Your task to perform on an android device: View the shopping cart on amazon.com. Image 0: 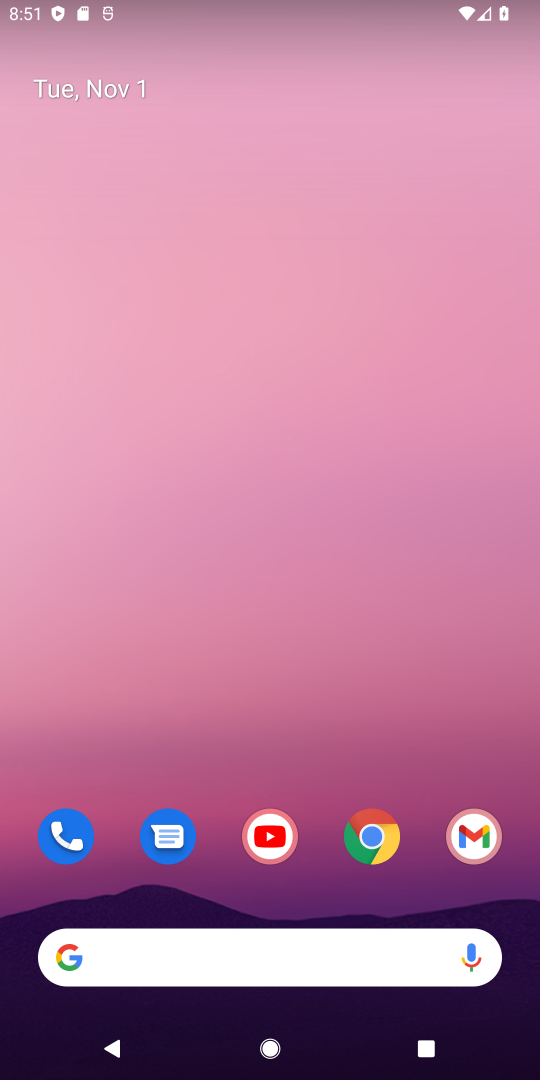
Step 0: drag from (320, 805) to (359, 171)
Your task to perform on an android device: View the shopping cart on amazon.com. Image 1: 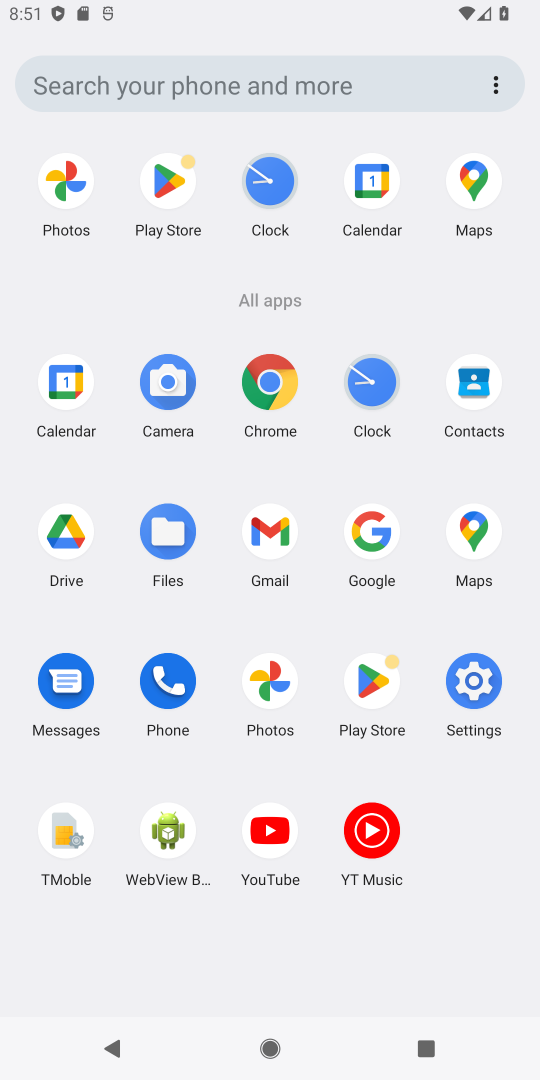
Step 1: click (273, 395)
Your task to perform on an android device: View the shopping cart on amazon.com. Image 2: 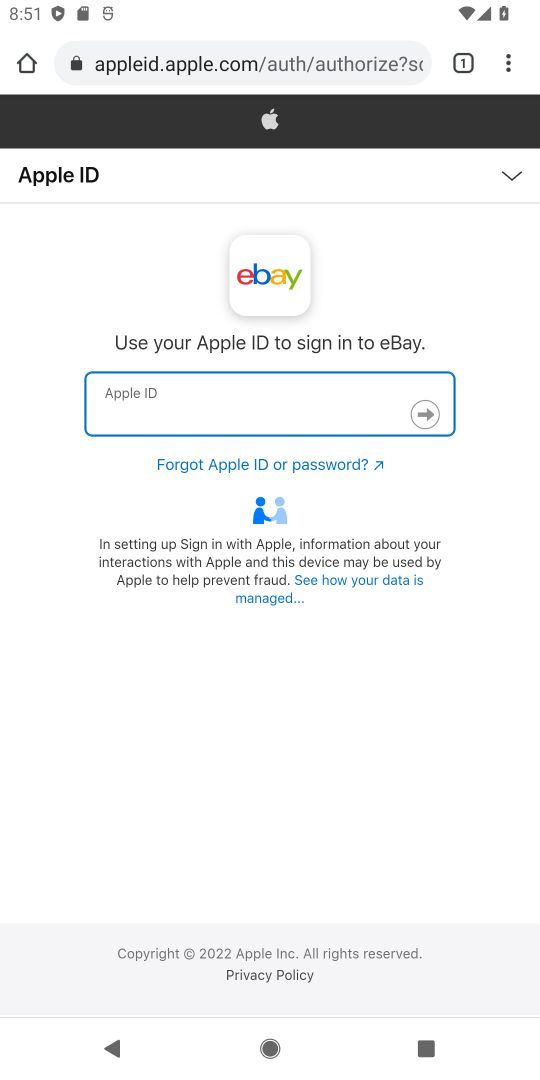
Step 2: click (286, 58)
Your task to perform on an android device: View the shopping cart on amazon.com. Image 3: 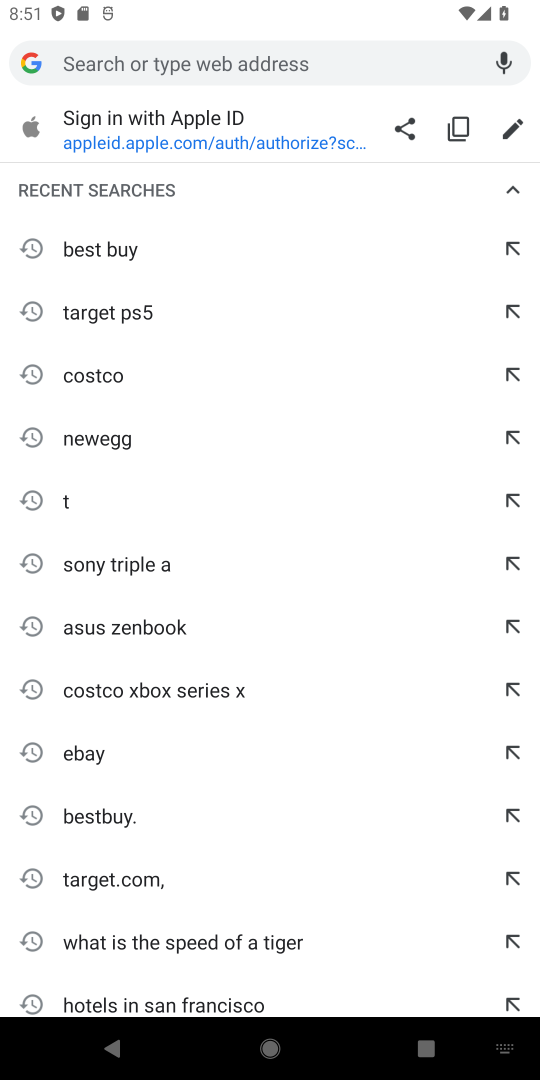
Step 3: click (311, 53)
Your task to perform on an android device: View the shopping cart on amazon.com. Image 4: 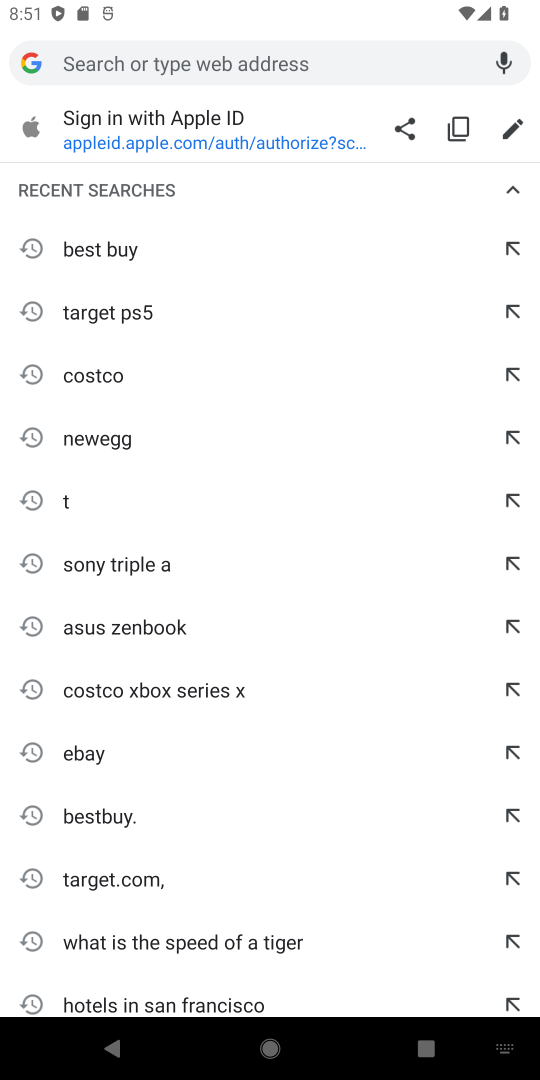
Step 4: type "amazon.com"
Your task to perform on an android device: View the shopping cart on amazon.com. Image 5: 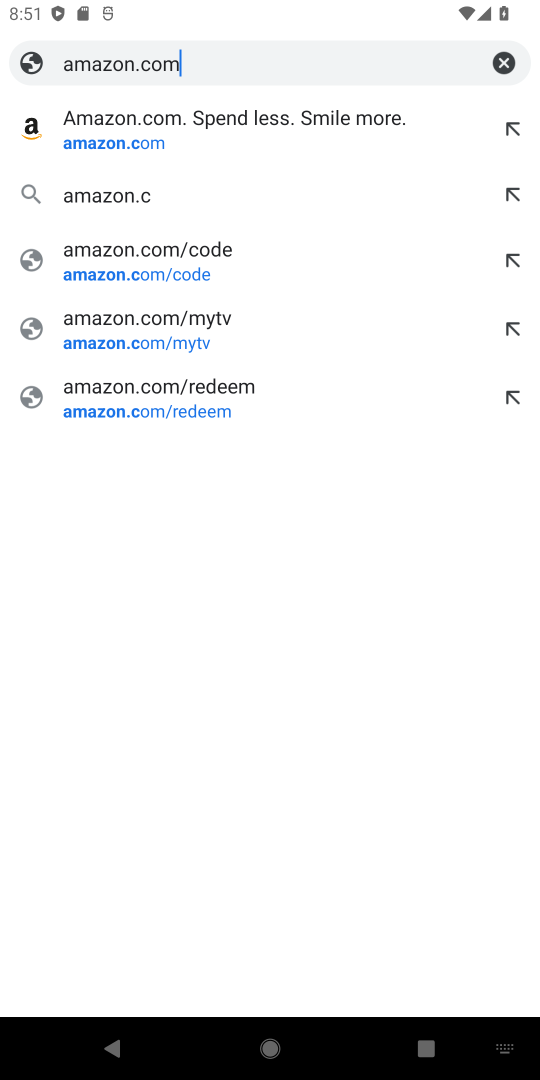
Step 5: type ""
Your task to perform on an android device: View the shopping cart on amazon.com. Image 6: 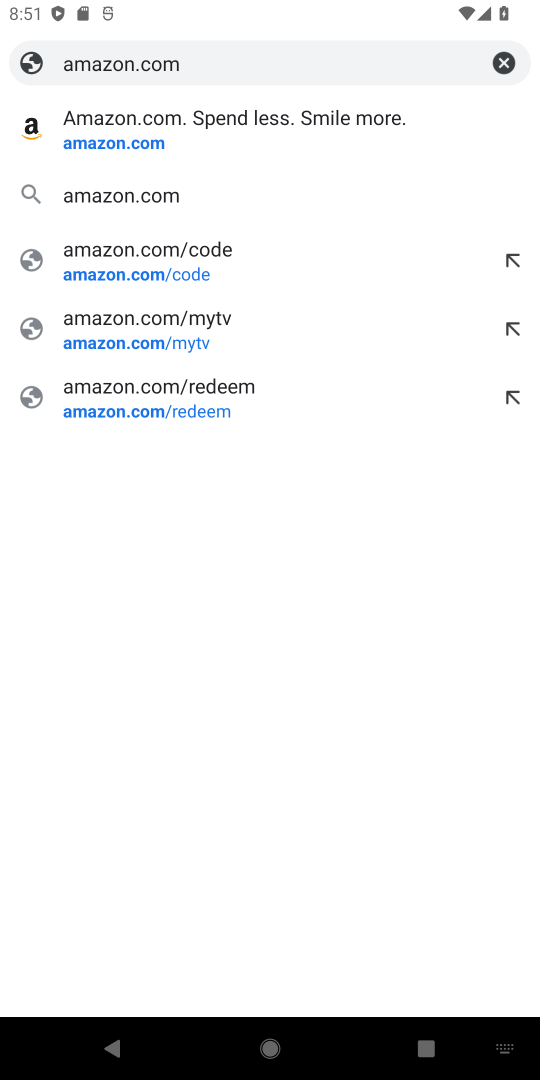
Step 6: click (282, 141)
Your task to perform on an android device: View the shopping cart on amazon.com. Image 7: 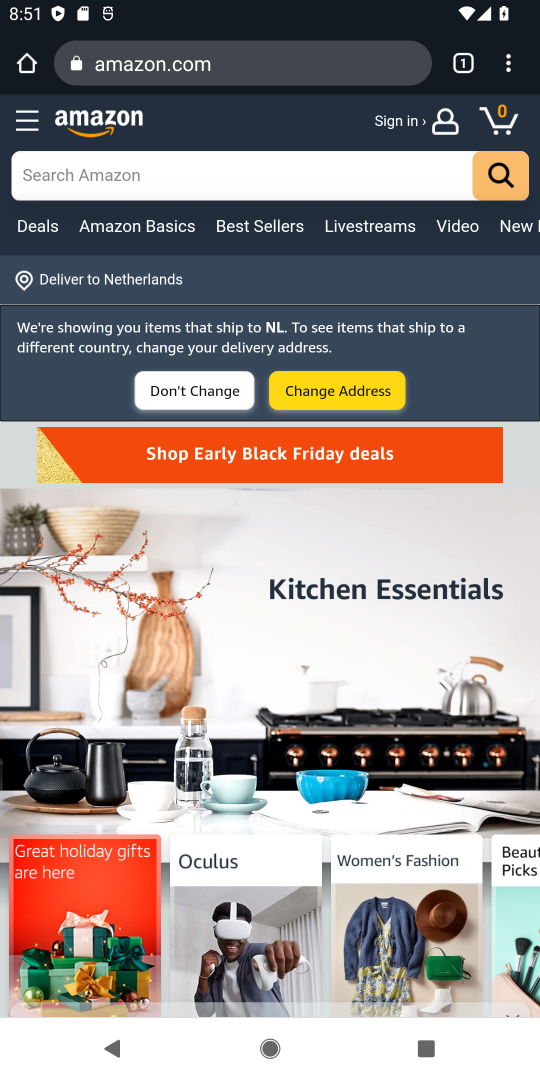
Step 7: click (185, 393)
Your task to perform on an android device: View the shopping cart on amazon.com. Image 8: 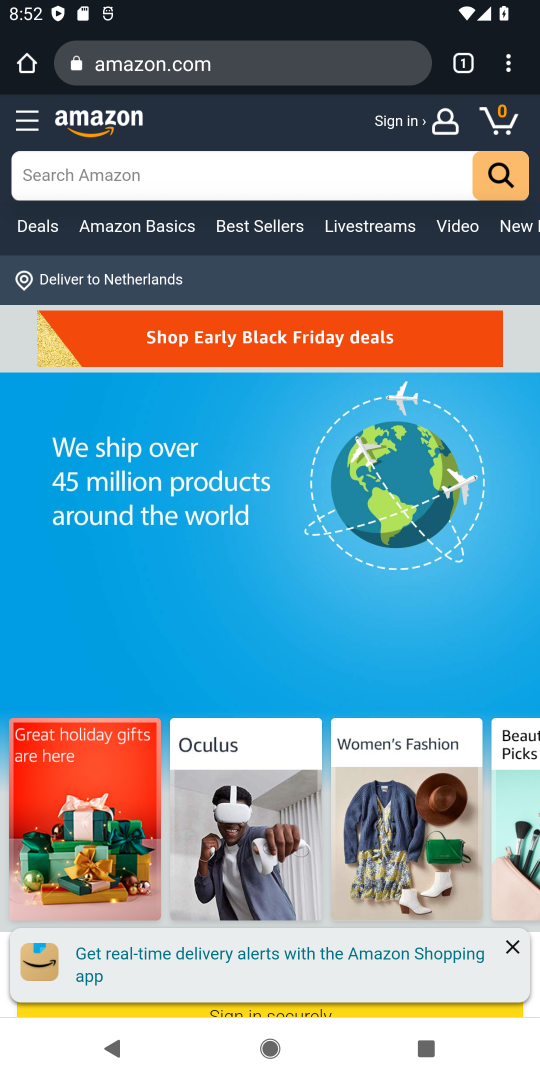
Step 8: click (504, 118)
Your task to perform on an android device: View the shopping cart on amazon.com. Image 9: 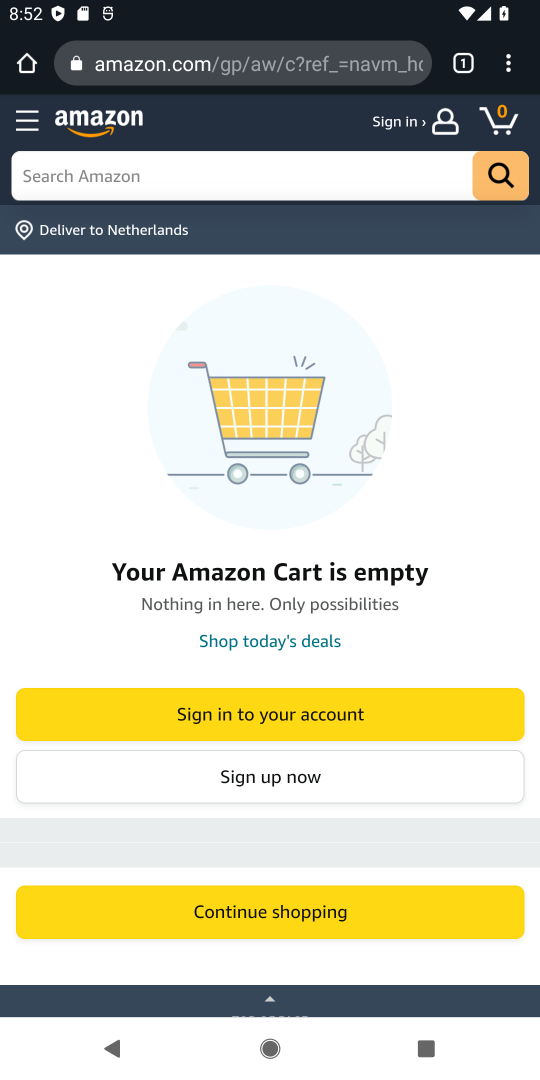
Step 9: drag from (240, 667) to (337, 290)
Your task to perform on an android device: View the shopping cart on amazon.com. Image 10: 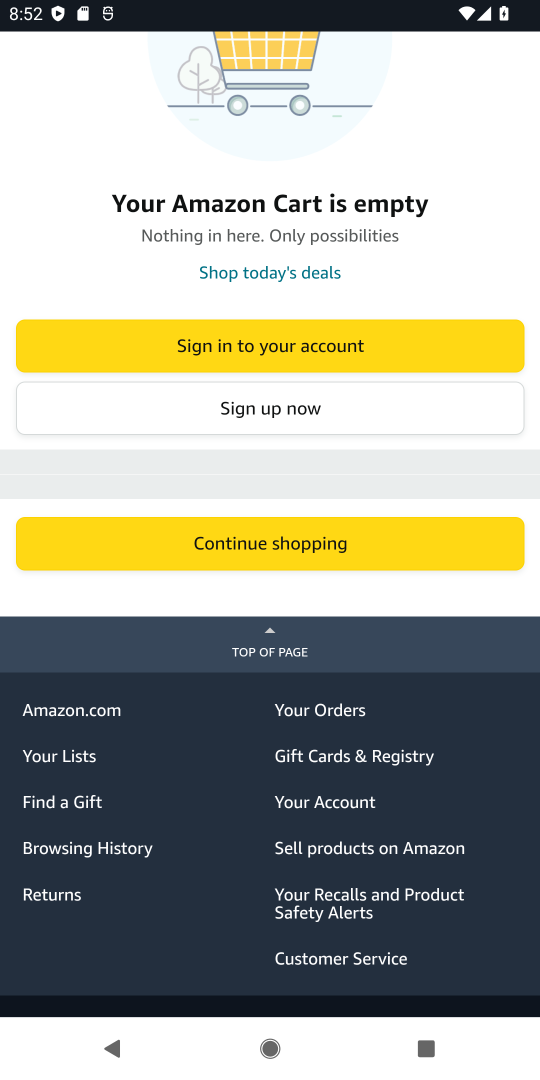
Step 10: click (375, 229)
Your task to perform on an android device: View the shopping cart on amazon.com. Image 11: 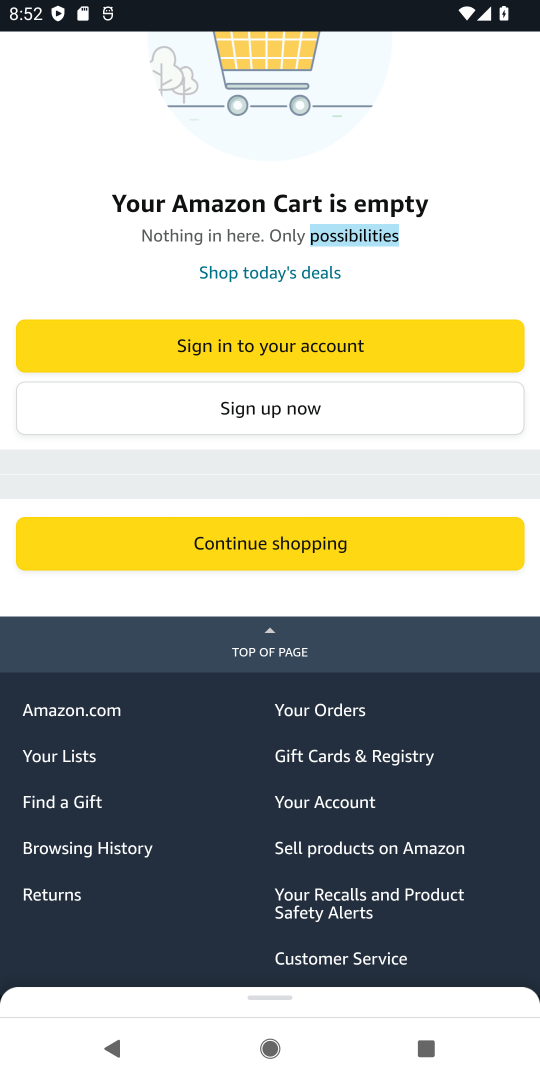
Step 11: drag from (335, 488) to (338, 228)
Your task to perform on an android device: View the shopping cart on amazon.com. Image 12: 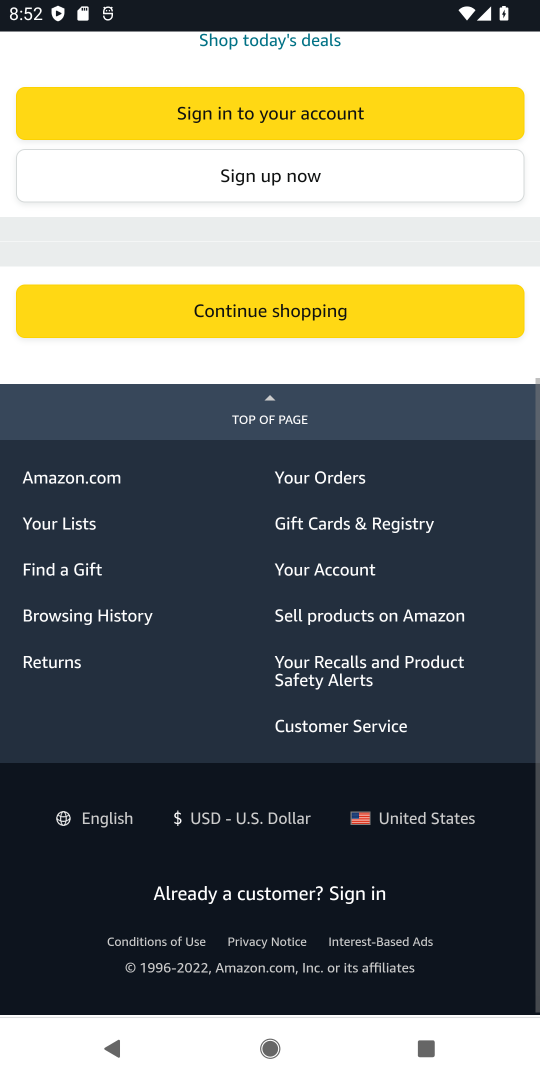
Step 12: drag from (289, 547) to (280, 309)
Your task to perform on an android device: View the shopping cart on amazon.com. Image 13: 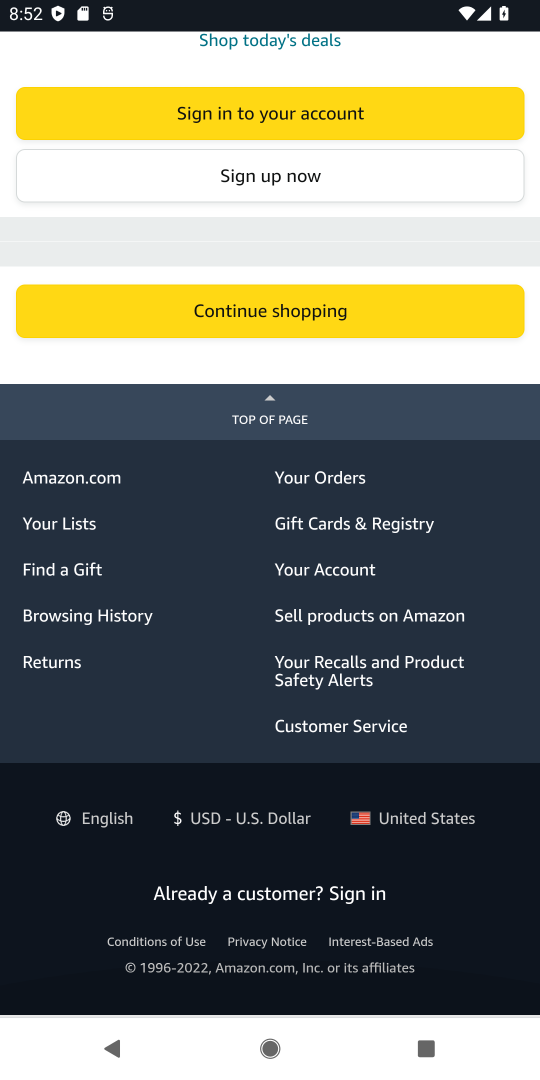
Step 13: drag from (275, 365) to (295, 220)
Your task to perform on an android device: View the shopping cart on amazon.com. Image 14: 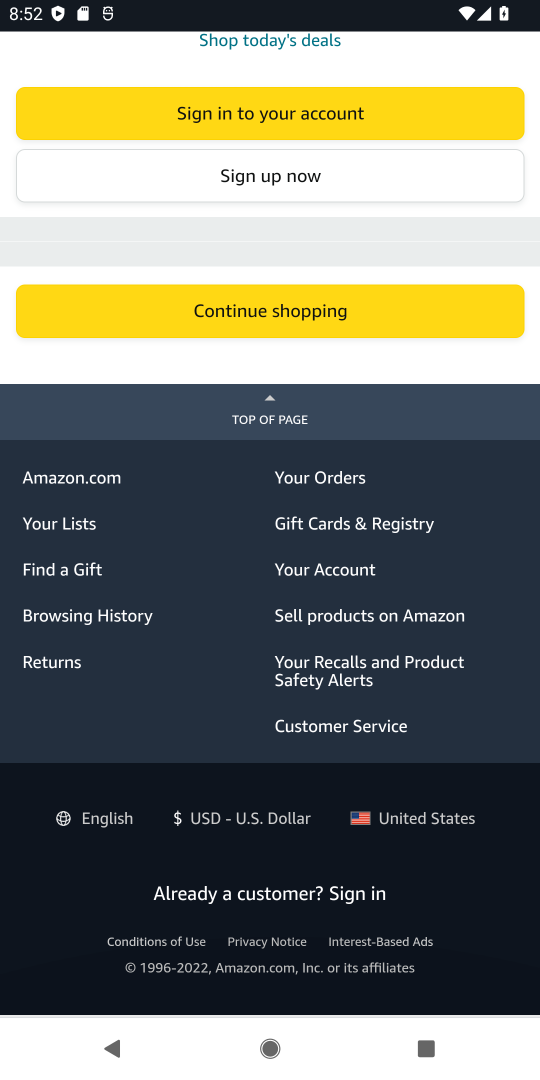
Step 14: drag from (290, 417) to (295, 319)
Your task to perform on an android device: View the shopping cart on amazon.com. Image 15: 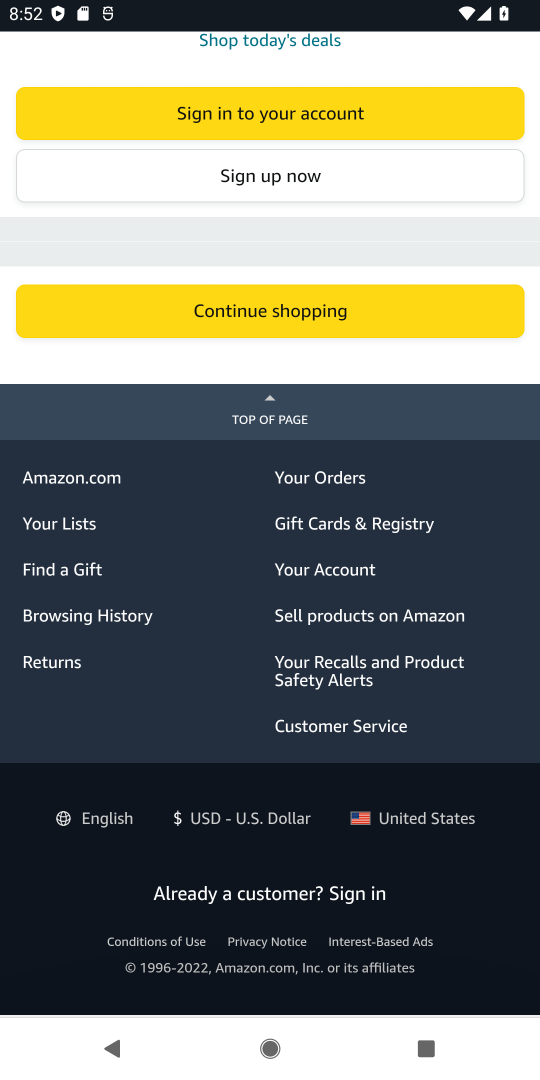
Step 15: click (270, 356)
Your task to perform on an android device: View the shopping cart on amazon.com. Image 16: 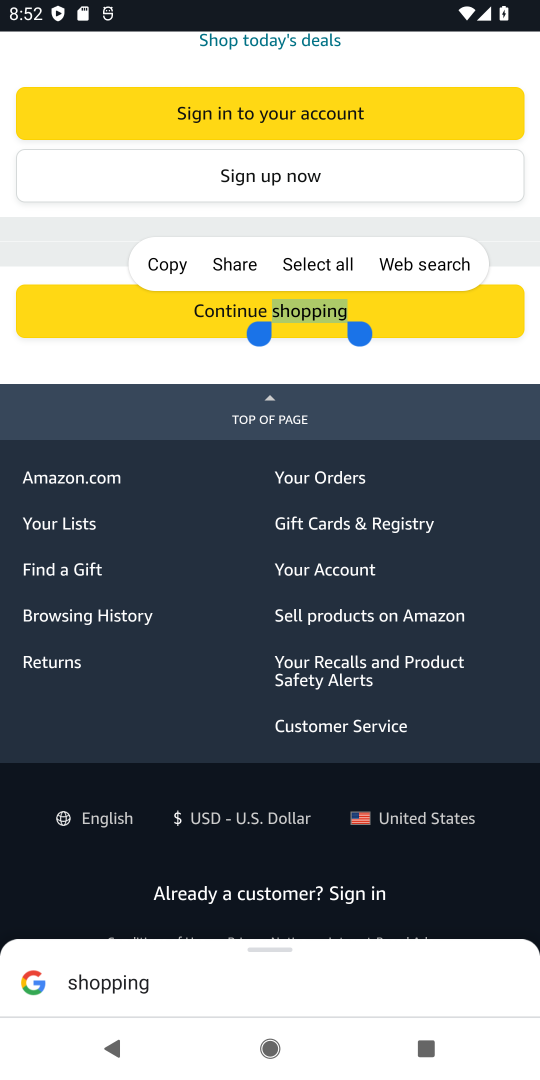
Step 16: press back button
Your task to perform on an android device: View the shopping cart on amazon.com. Image 17: 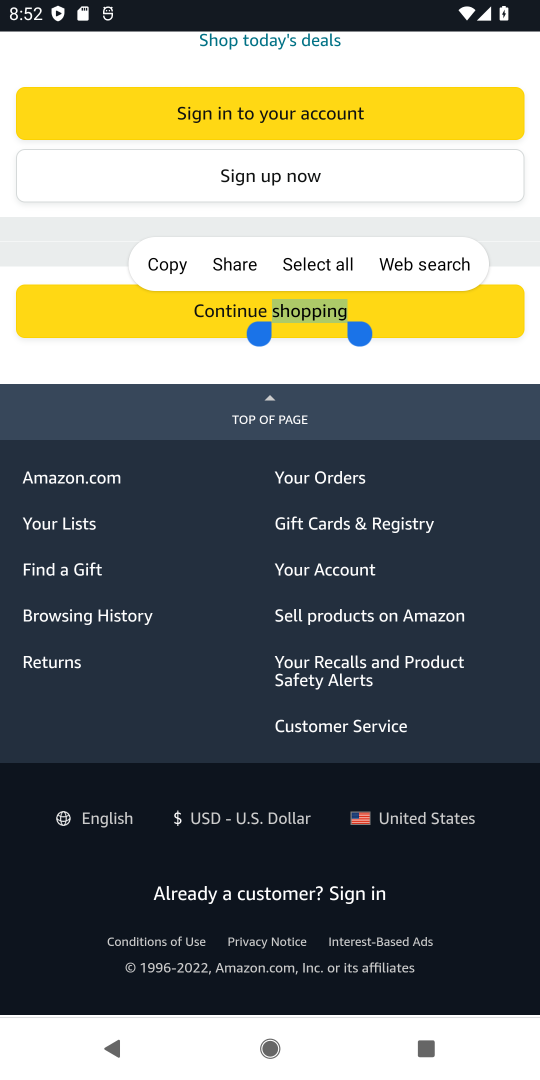
Step 17: press back button
Your task to perform on an android device: View the shopping cart on amazon.com. Image 18: 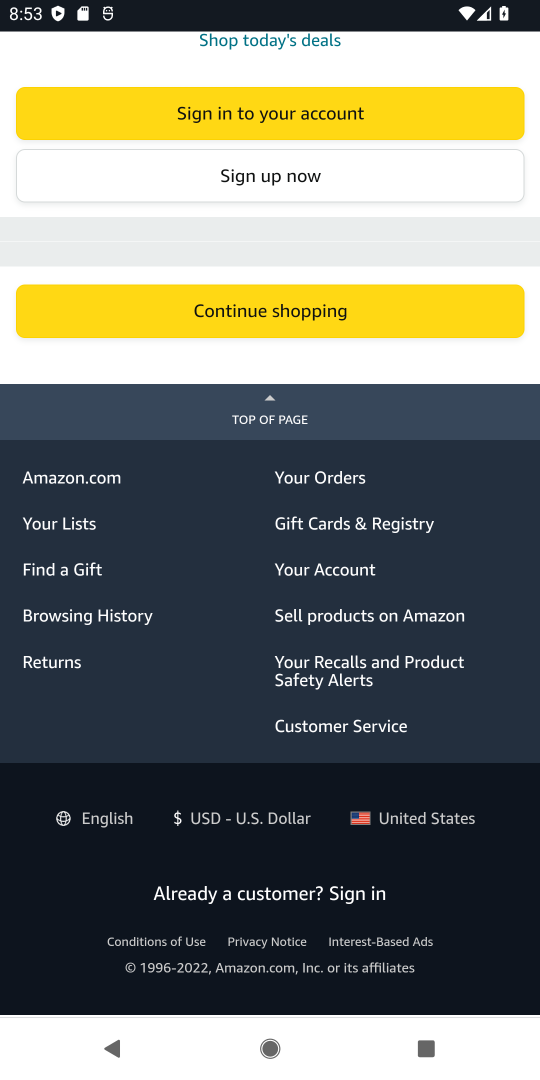
Step 18: press back button
Your task to perform on an android device: View the shopping cart on amazon.com. Image 19: 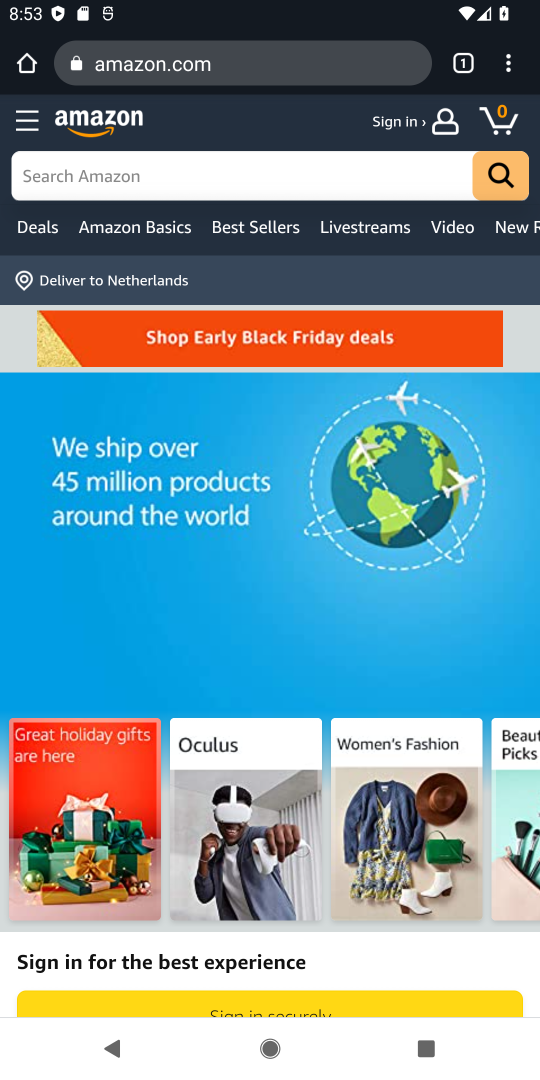
Step 19: drag from (314, 698) to (327, 455)
Your task to perform on an android device: View the shopping cart on amazon.com. Image 20: 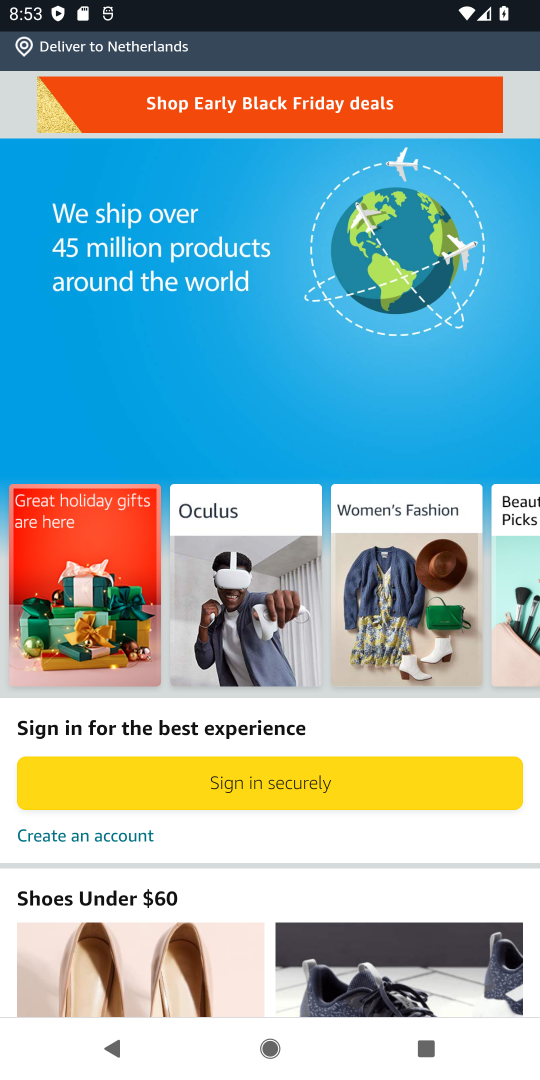
Step 20: drag from (156, 807) to (208, 303)
Your task to perform on an android device: View the shopping cart on amazon.com. Image 21: 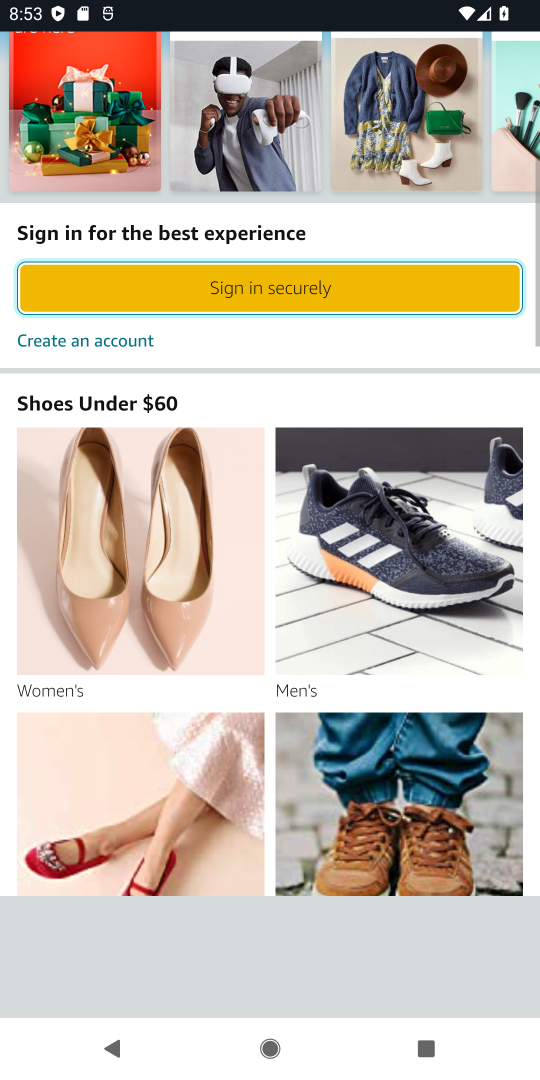
Step 21: click (255, 334)
Your task to perform on an android device: View the shopping cart on amazon.com. Image 22: 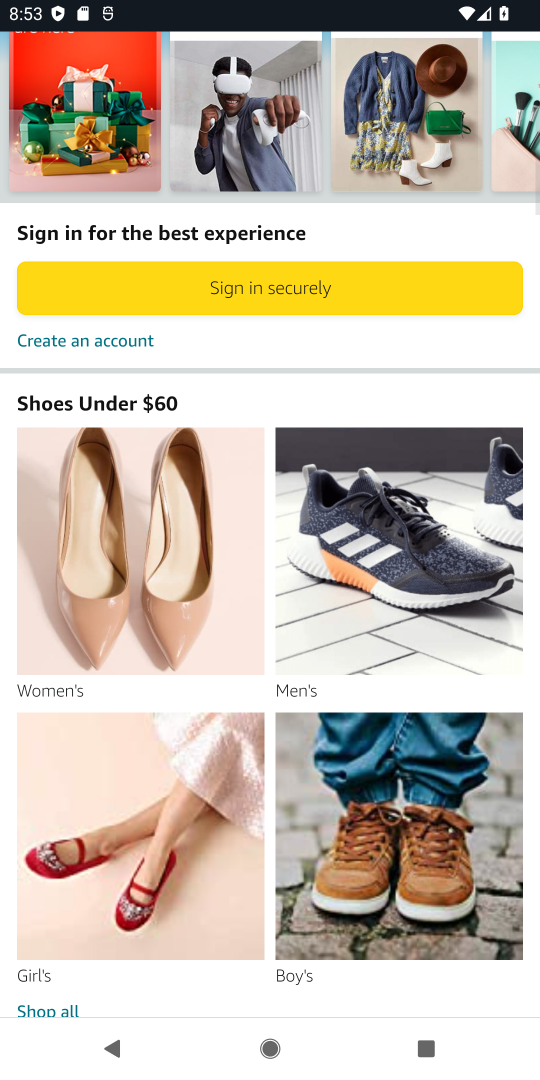
Step 22: task complete